Your task to perform on an android device: turn off improve location accuracy Image 0: 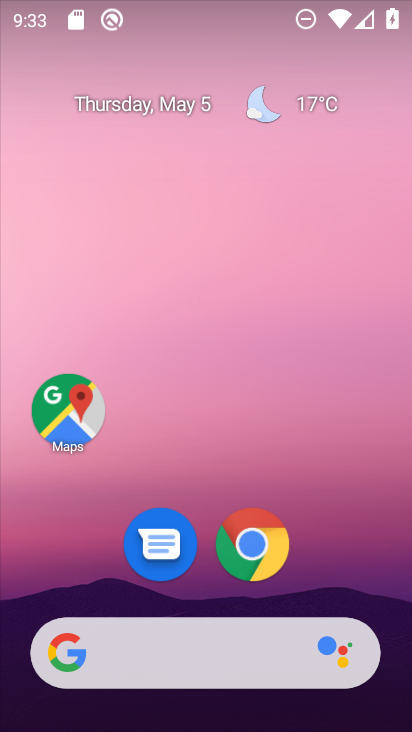
Step 0: drag from (387, 649) to (226, 0)
Your task to perform on an android device: turn off improve location accuracy Image 1: 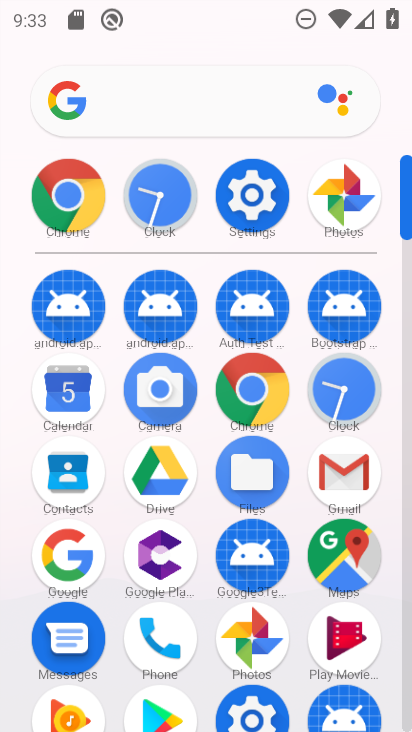
Step 1: click (248, 214)
Your task to perform on an android device: turn off improve location accuracy Image 2: 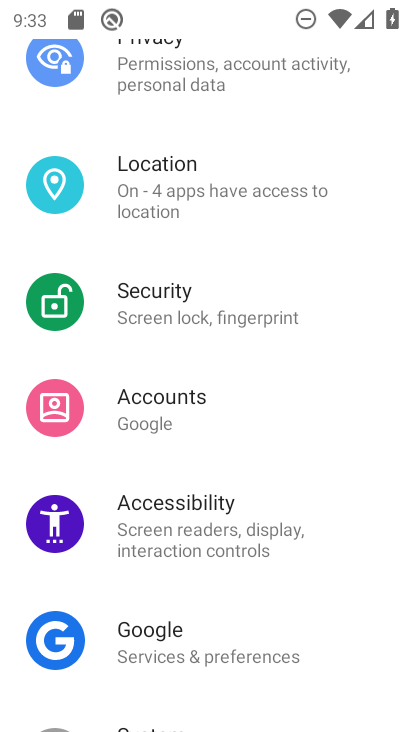
Step 2: drag from (196, 684) to (233, 465)
Your task to perform on an android device: turn off improve location accuracy Image 3: 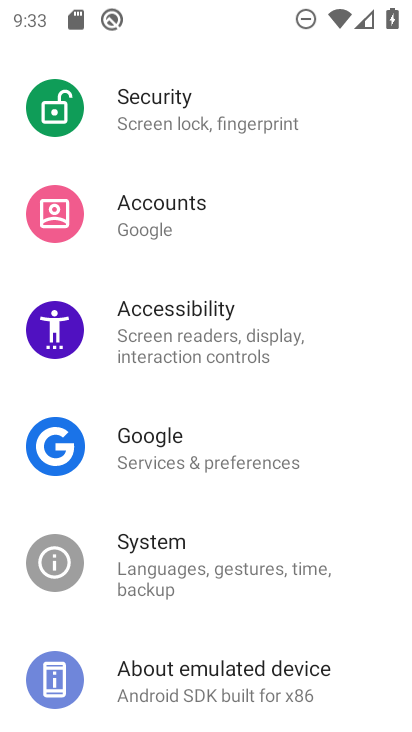
Step 3: drag from (166, 119) to (191, 506)
Your task to perform on an android device: turn off improve location accuracy Image 4: 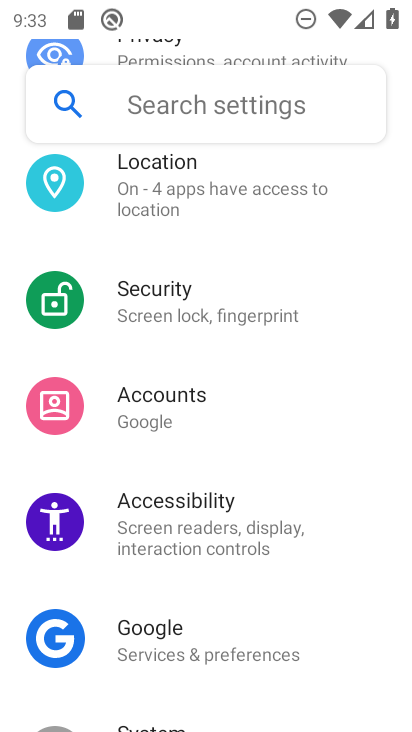
Step 4: click (183, 201)
Your task to perform on an android device: turn off improve location accuracy Image 5: 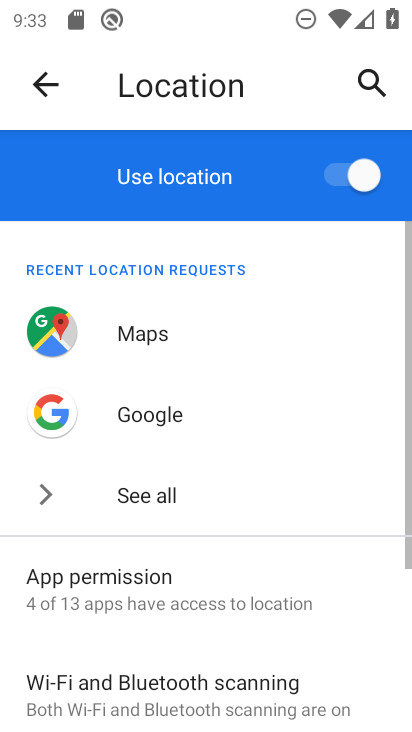
Step 5: drag from (181, 661) to (230, 239)
Your task to perform on an android device: turn off improve location accuracy Image 6: 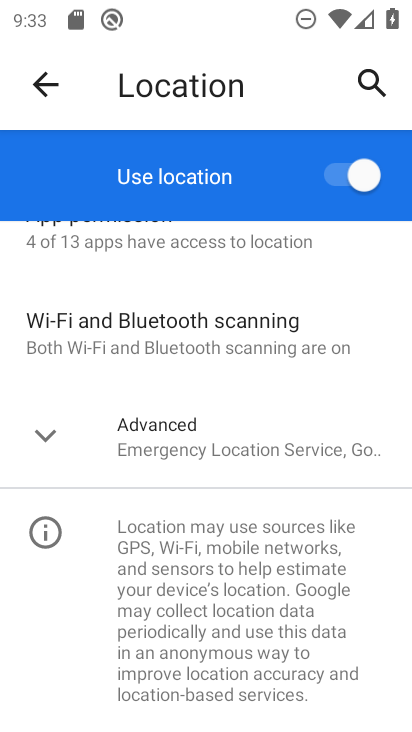
Step 6: click (164, 460)
Your task to perform on an android device: turn off improve location accuracy Image 7: 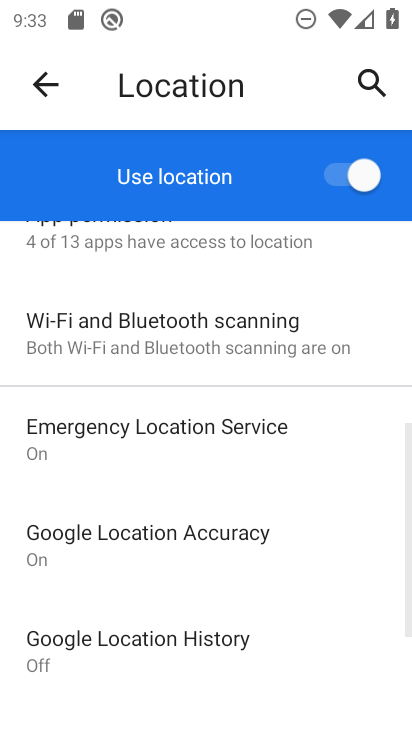
Step 7: click (167, 546)
Your task to perform on an android device: turn off improve location accuracy Image 8: 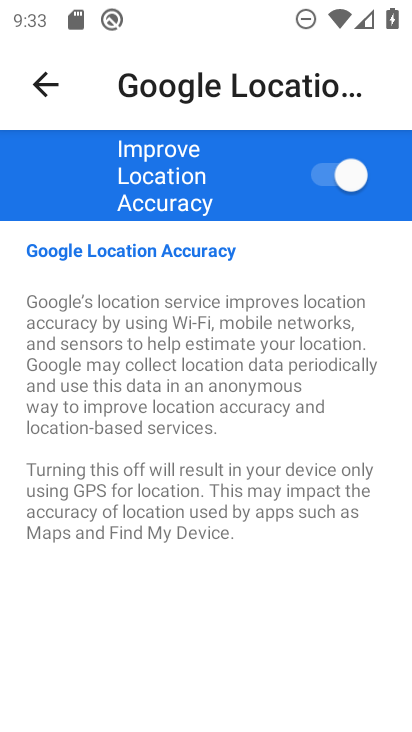
Step 8: click (329, 163)
Your task to perform on an android device: turn off improve location accuracy Image 9: 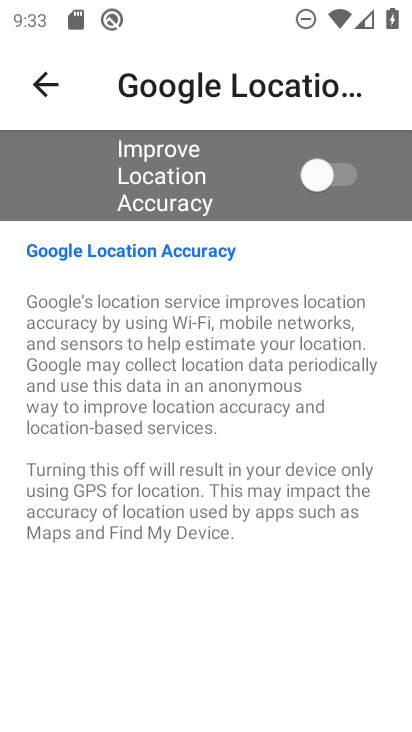
Step 9: task complete